Your task to perform on an android device: allow cookies in the chrome app Image 0: 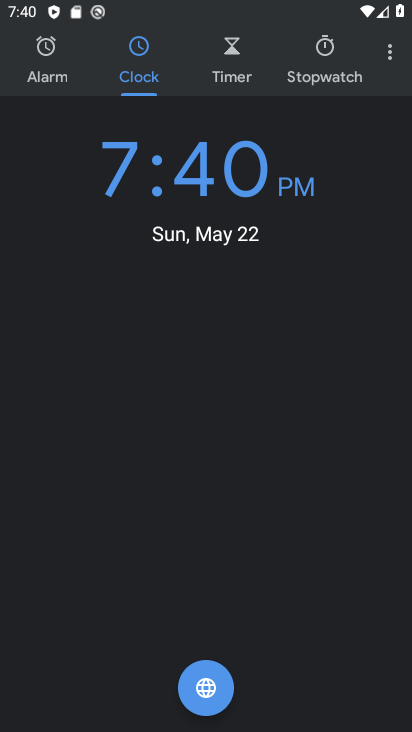
Step 0: press home button
Your task to perform on an android device: allow cookies in the chrome app Image 1: 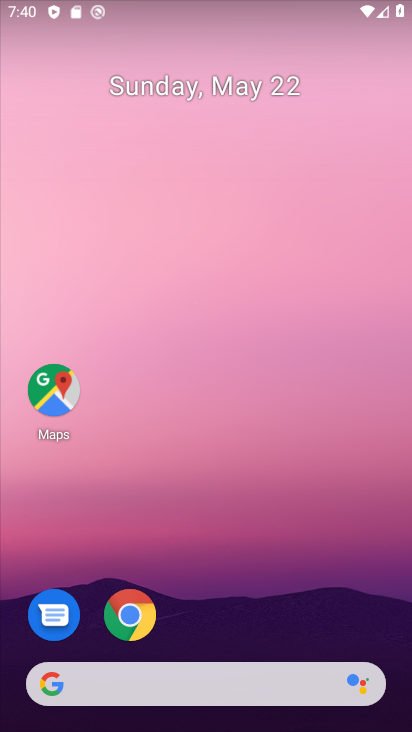
Step 1: click (135, 609)
Your task to perform on an android device: allow cookies in the chrome app Image 2: 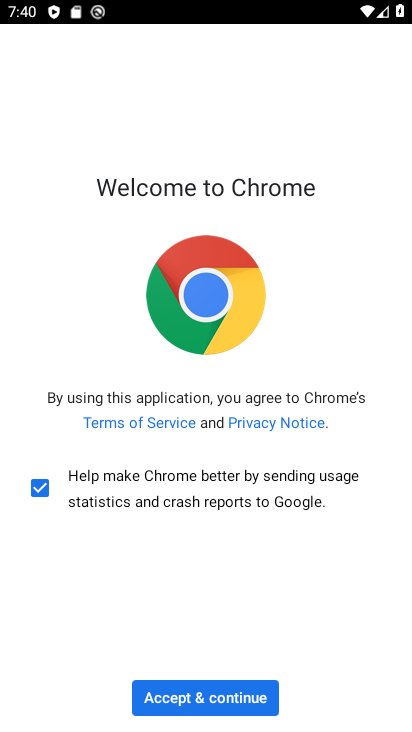
Step 2: click (229, 707)
Your task to perform on an android device: allow cookies in the chrome app Image 3: 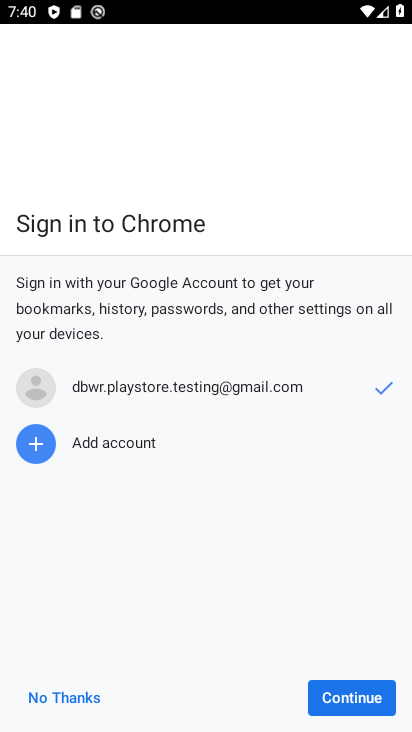
Step 3: click (347, 702)
Your task to perform on an android device: allow cookies in the chrome app Image 4: 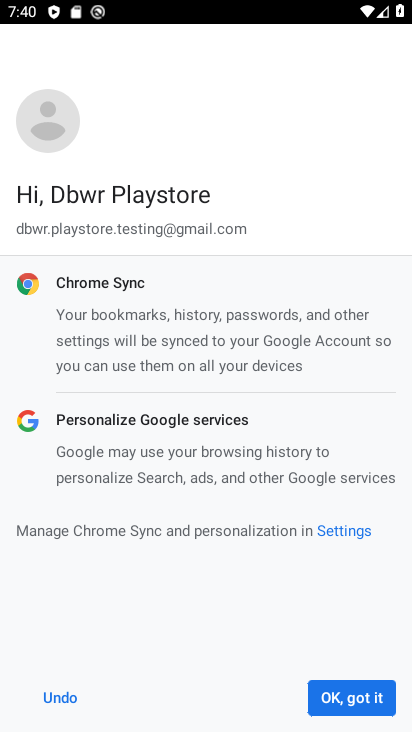
Step 4: click (347, 702)
Your task to perform on an android device: allow cookies in the chrome app Image 5: 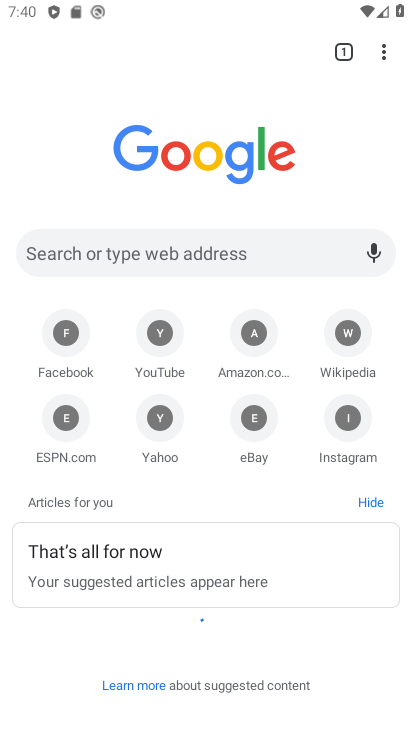
Step 5: click (385, 64)
Your task to perform on an android device: allow cookies in the chrome app Image 6: 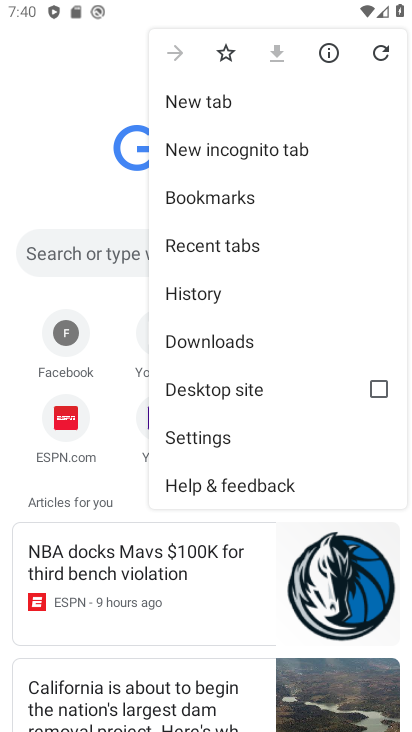
Step 6: click (189, 424)
Your task to perform on an android device: allow cookies in the chrome app Image 7: 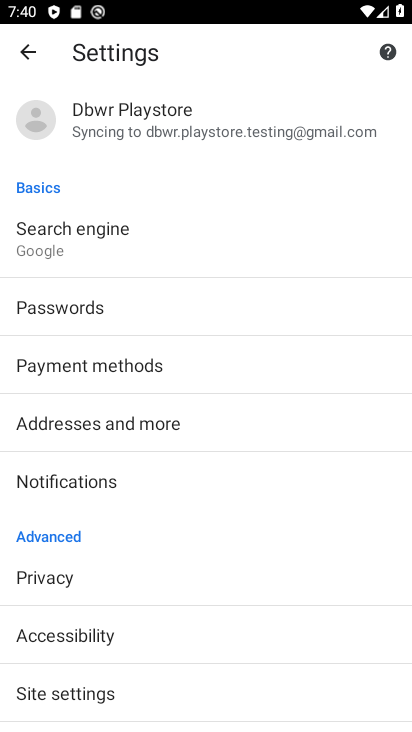
Step 7: click (84, 699)
Your task to perform on an android device: allow cookies in the chrome app Image 8: 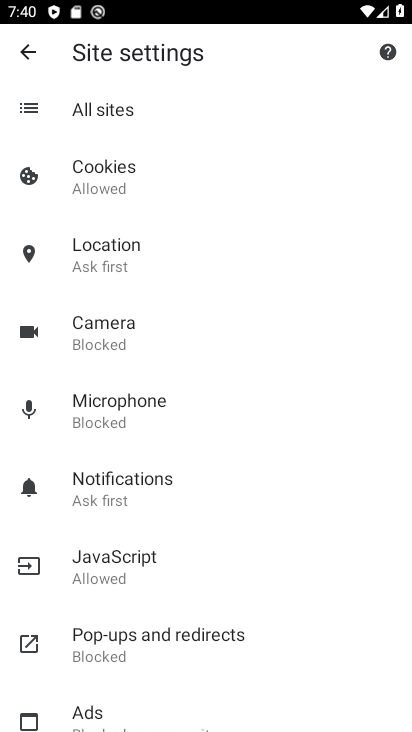
Step 8: click (119, 179)
Your task to perform on an android device: allow cookies in the chrome app Image 9: 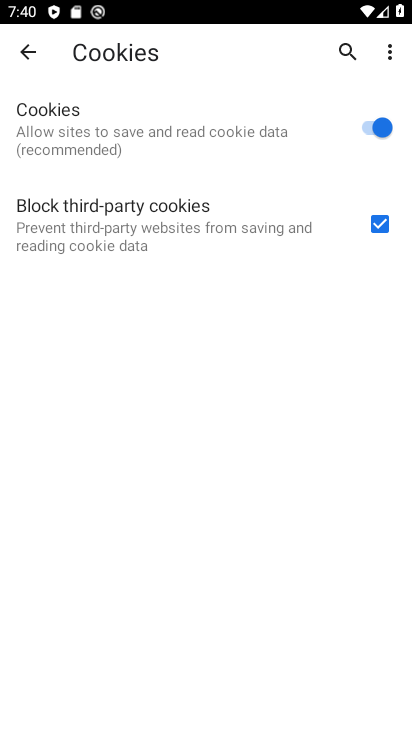
Step 9: task complete